Your task to perform on an android device: toggle notification dots Image 0: 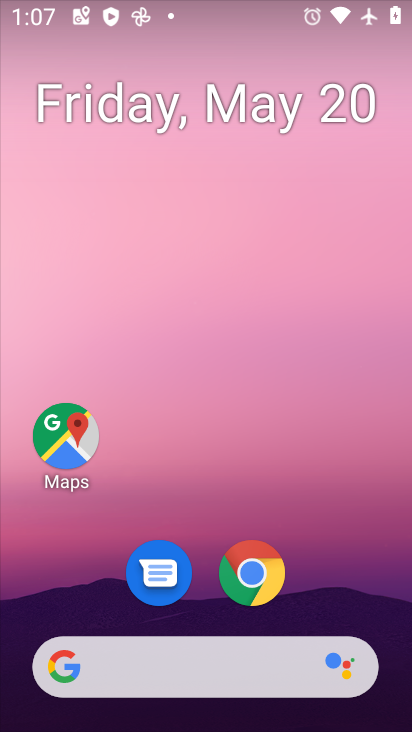
Step 0: drag from (333, 573) to (338, 102)
Your task to perform on an android device: toggle notification dots Image 1: 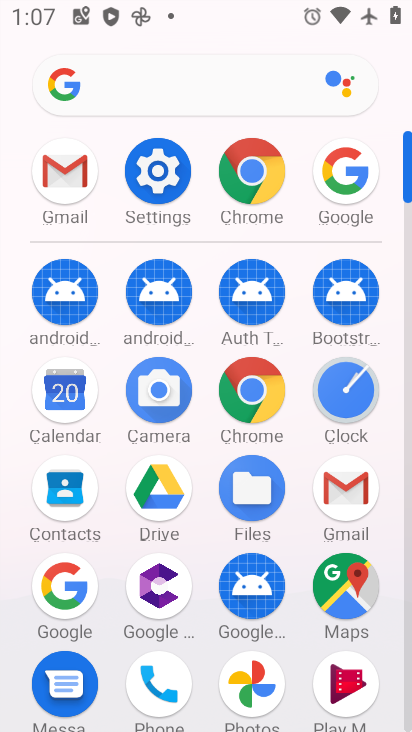
Step 1: click (165, 159)
Your task to perform on an android device: toggle notification dots Image 2: 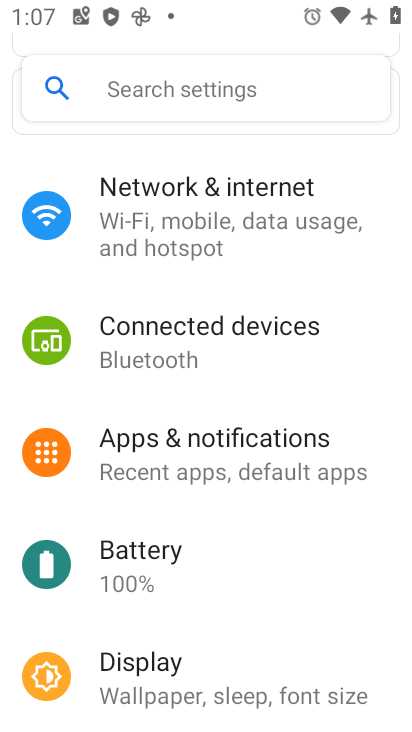
Step 2: click (266, 411)
Your task to perform on an android device: toggle notification dots Image 3: 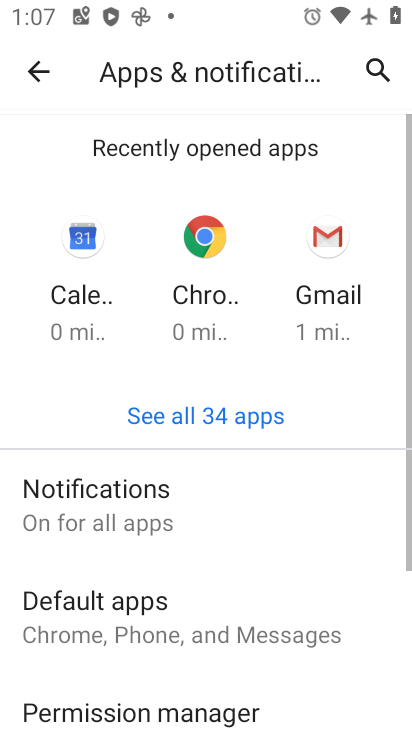
Step 3: click (150, 508)
Your task to perform on an android device: toggle notification dots Image 4: 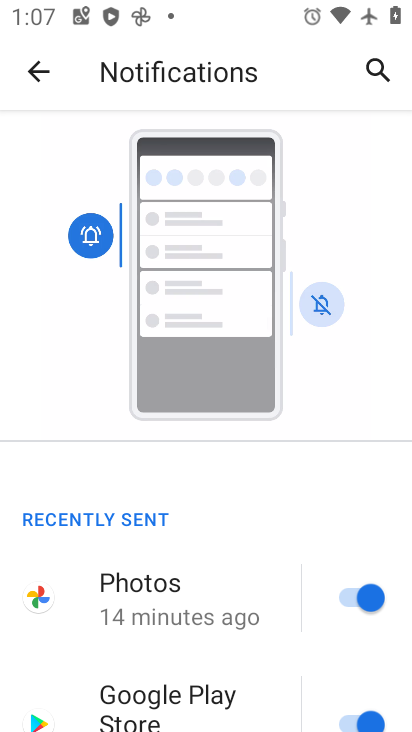
Step 4: drag from (255, 282) to (281, 114)
Your task to perform on an android device: toggle notification dots Image 5: 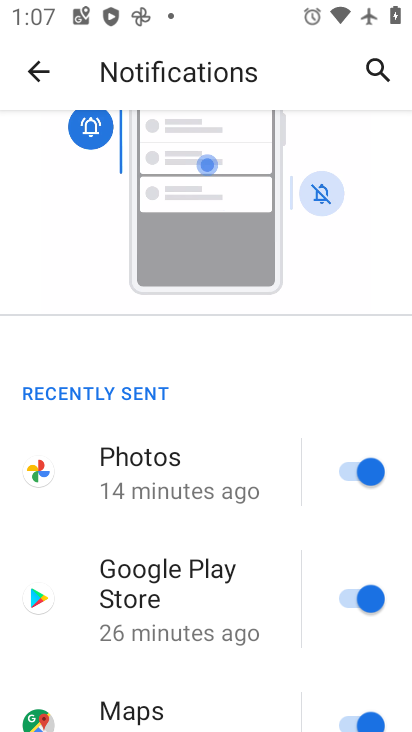
Step 5: drag from (239, 632) to (278, 110)
Your task to perform on an android device: toggle notification dots Image 6: 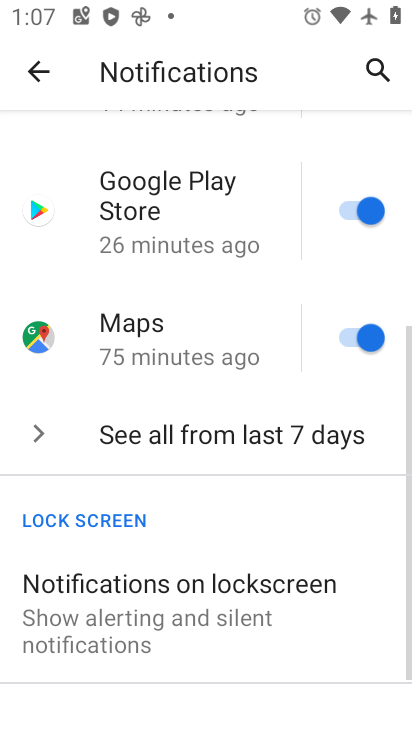
Step 6: drag from (211, 693) to (257, 204)
Your task to perform on an android device: toggle notification dots Image 7: 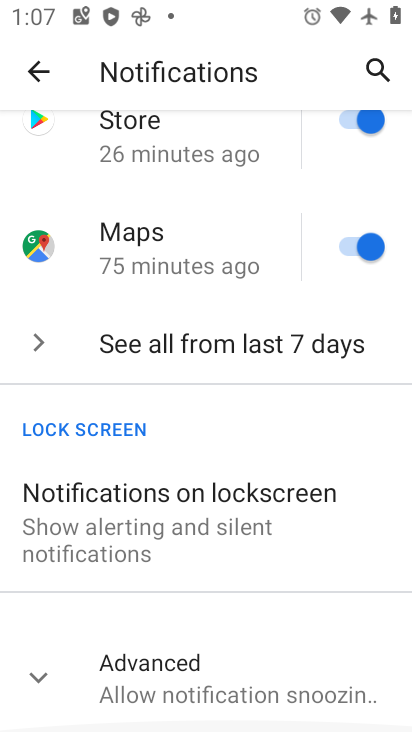
Step 7: click (195, 699)
Your task to perform on an android device: toggle notification dots Image 8: 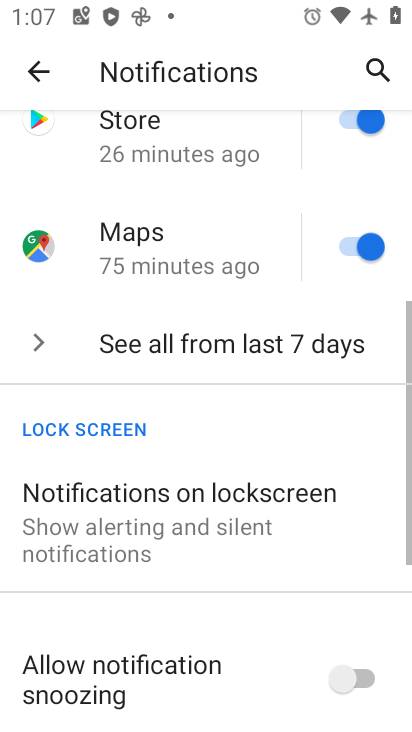
Step 8: drag from (284, 559) to (248, 192)
Your task to perform on an android device: toggle notification dots Image 9: 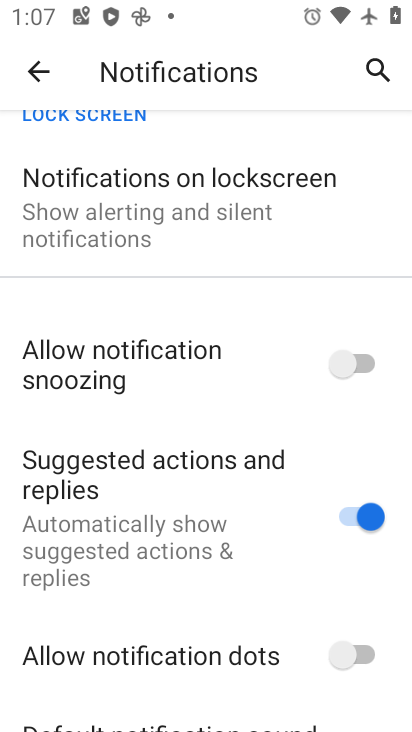
Step 9: click (346, 654)
Your task to perform on an android device: toggle notification dots Image 10: 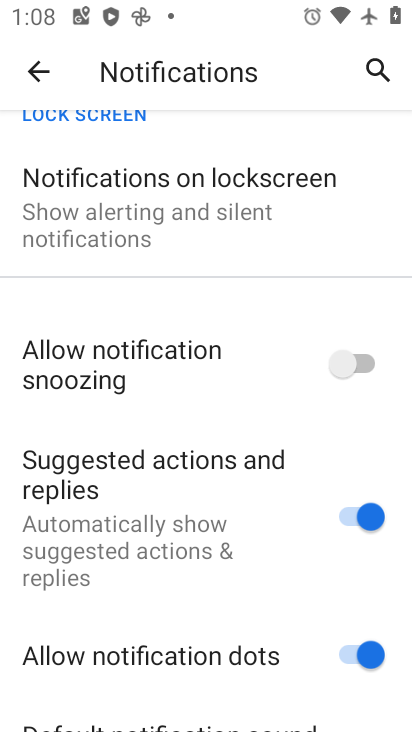
Step 10: task complete